Your task to perform on an android device: Open battery settings Image 0: 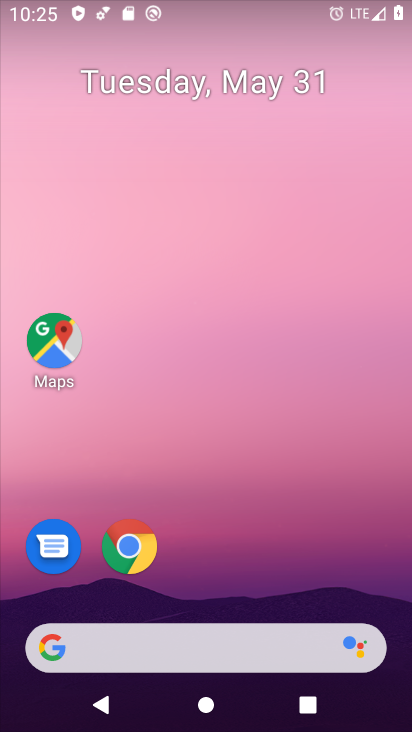
Step 0: drag from (327, 558) to (325, 9)
Your task to perform on an android device: Open battery settings Image 1: 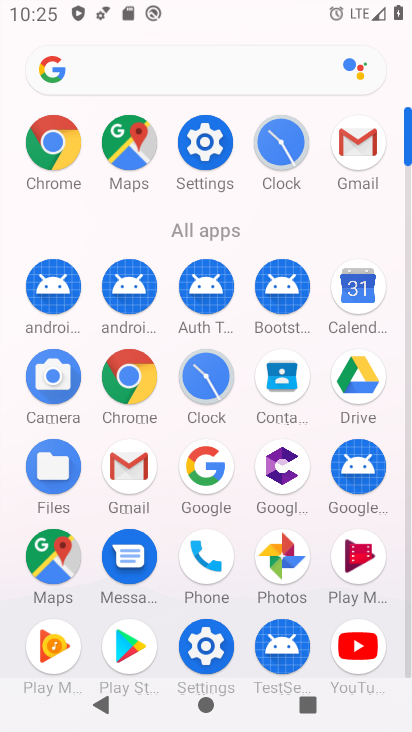
Step 1: click (188, 147)
Your task to perform on an android device: Open battery settings Image 2: 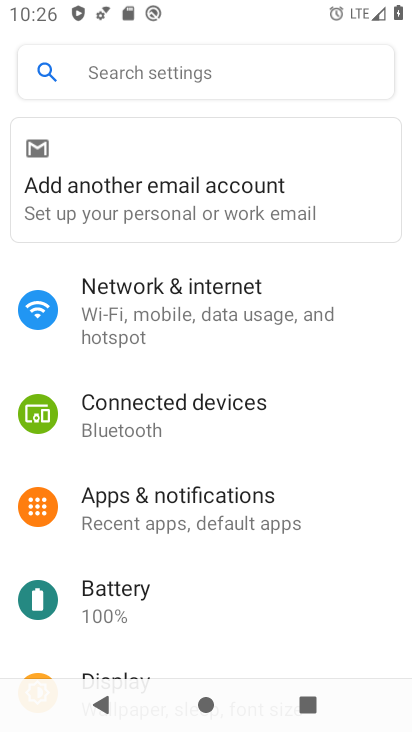
Step 2: click (185, 599)
Your task to perform on an android device: Open battery settings Image 3: 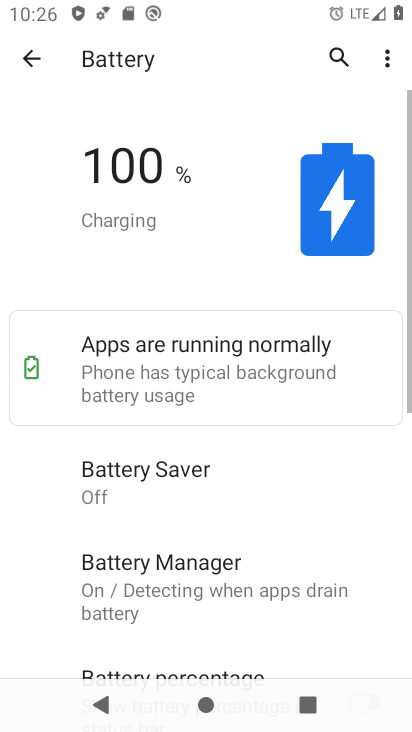
Step 3: task complete